Your task to perform on an android device: Open maps Image 0: 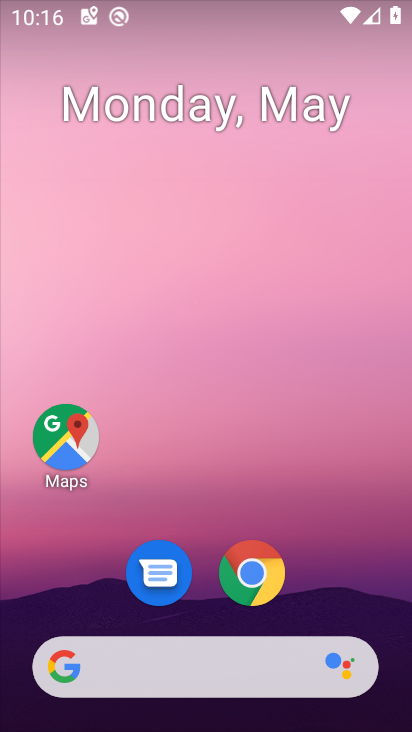
Step 0: click (60, 436)
Your task to perform on an android device: Open maps Image 1: 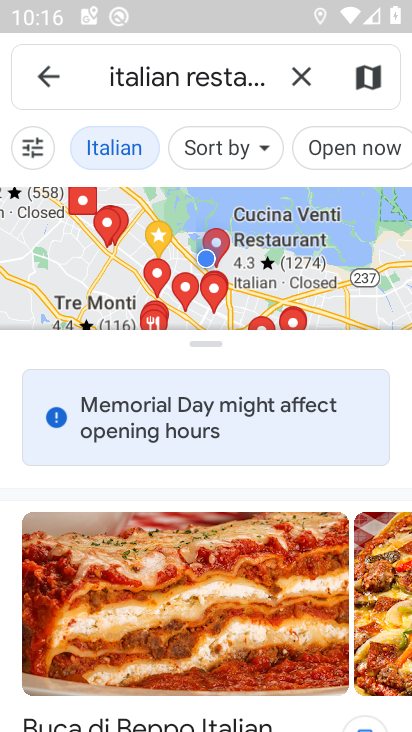
Step 1: task complete